Your task to perform on an android device: turn off notifications settings in the gmail app Image 0: 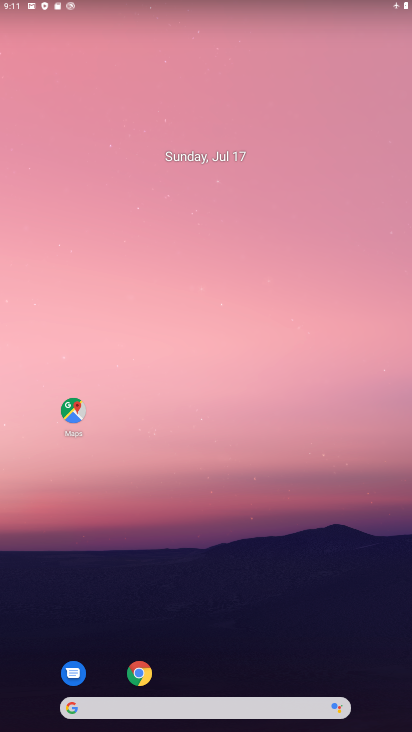
Step 0: drag from (333, 685) to (309, 55)
Your task to perform on an android device: turn off notifications settings in the gmail app Image 1: 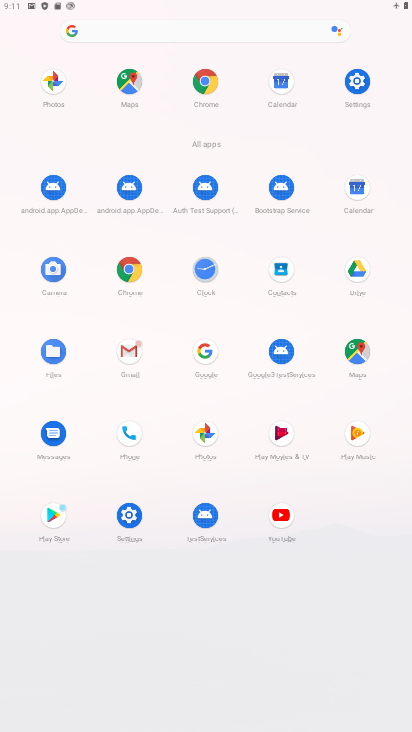
Step 1: click (131, 352)
Your task to perform on an android device: turn off notifications settings in the gmail app Image 2: 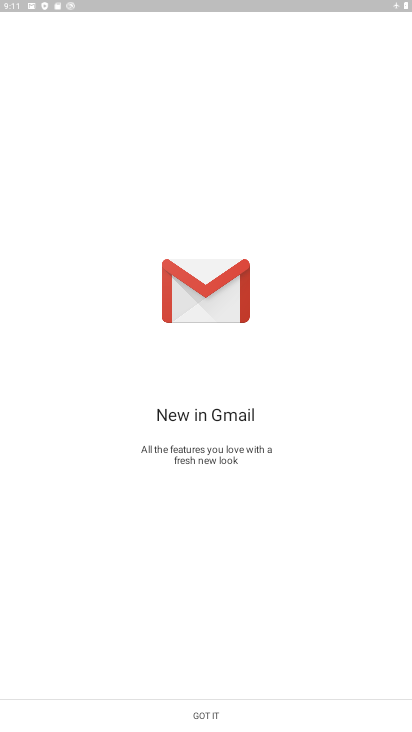
Step 2: click (201, 722)
Your task to perform on an android device: turn off notifications settings in the gmail app Image 3: 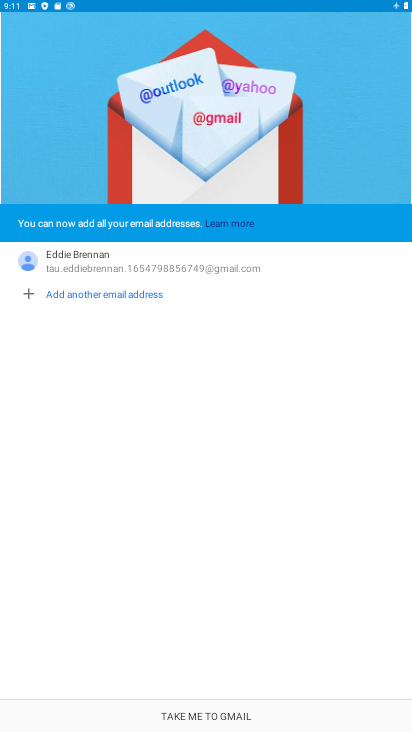
Step 3: click (201, 722)
Your task to perform on an android device: turn off notifications settings in the gmail app Image 4: 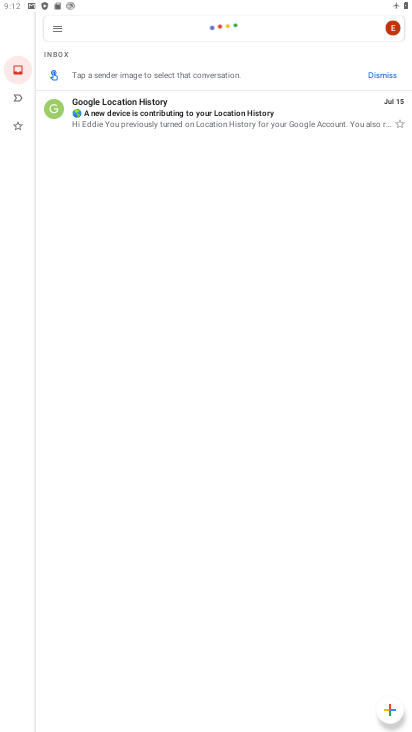
Step 4: click (55, 26)
Your task to perform on an android device: turn off notifications settings in the gmail app Image 5: 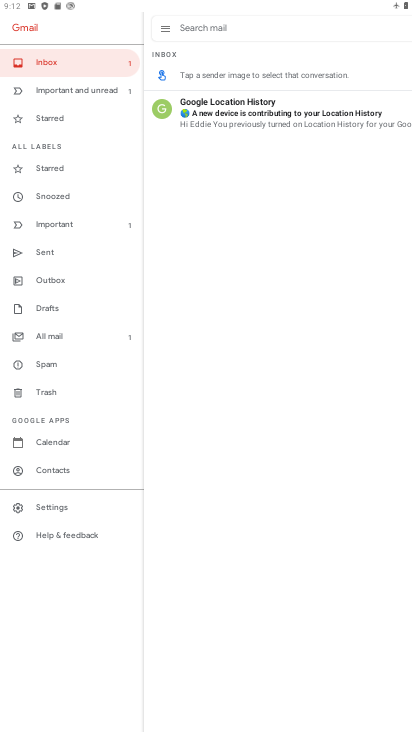
Step 5: click (50, 504)
Your task to perform on an android device: turn off notifications settings in the gmail app Image 6: 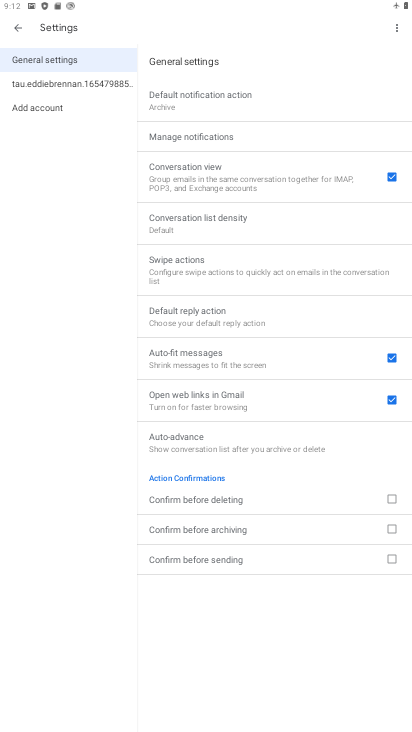
Step 6: click (69, 91)
Your task to perform on an android device: turn off notifications settings in the gmail app Image 7: 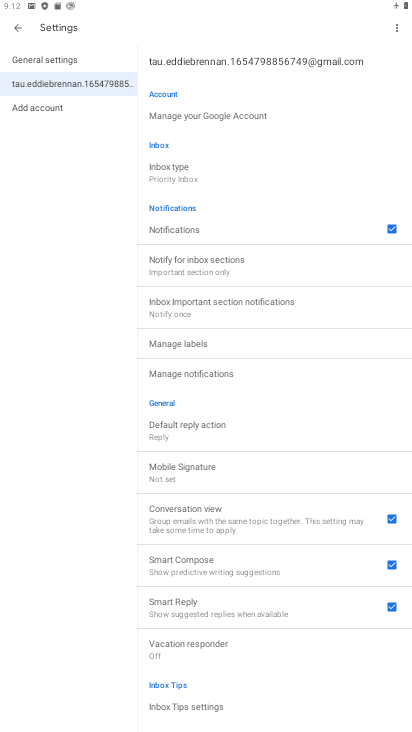
Step 7: click (201, 371)
Your task to perform on an android device: turn off notifications settings in the gmail app Image 8: 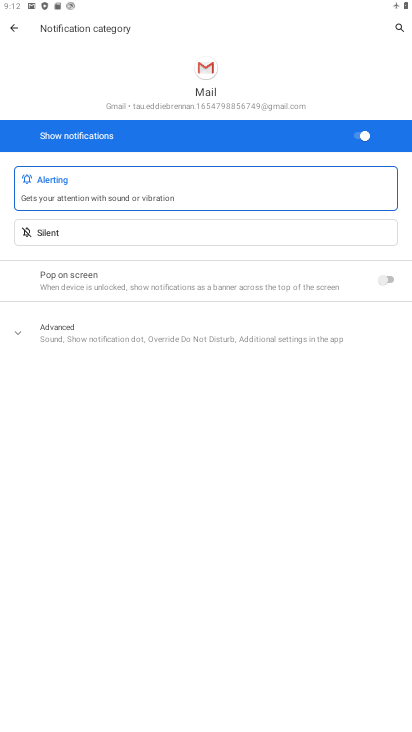
Step 8: click (356, 134)
Your task to perform on an android device: turn off notifications settings in the gmail app Image 9: 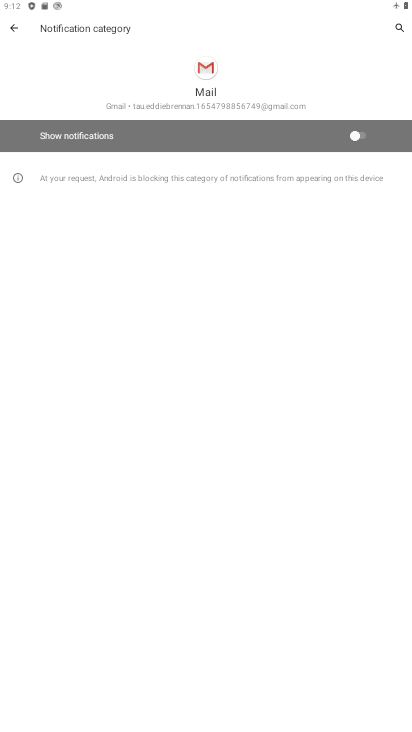
Step 9: task complete